Your task to perform on an android device: open a bookmark in the chrome app Image 0: 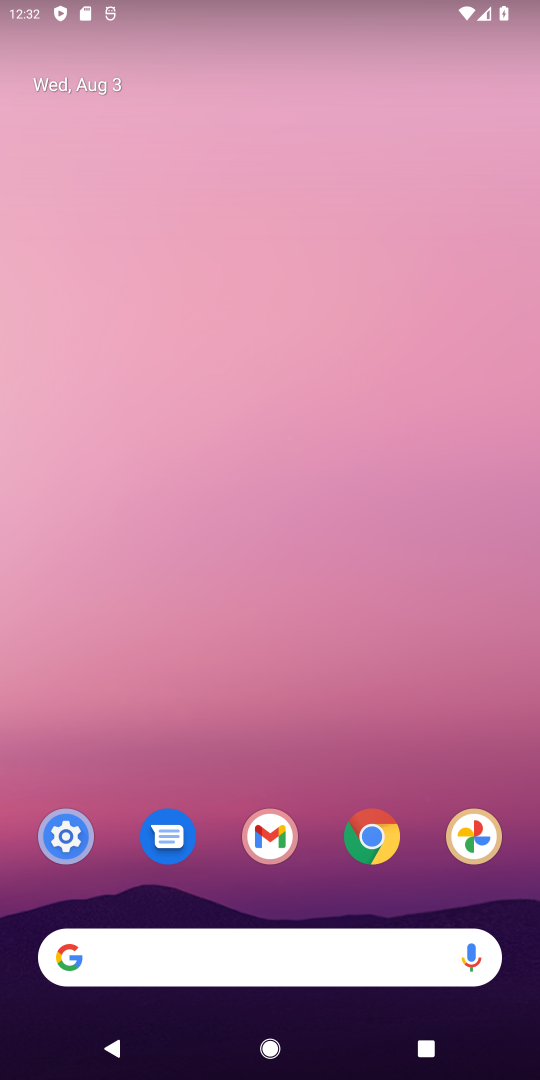
Step 0: drag from (228, 671) to (228, 85)
Your task to perform on an android device: open a bookmark in the chrome app Image 1: 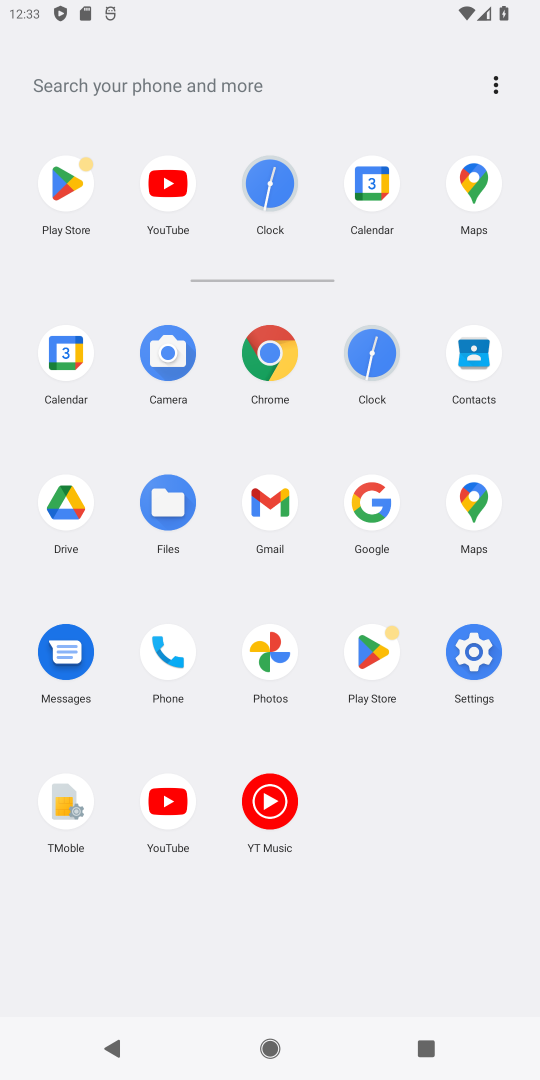
Step 1: click (268, 344)
Your task to perform on an android device: open a bookmark in the chrome app Image 2: 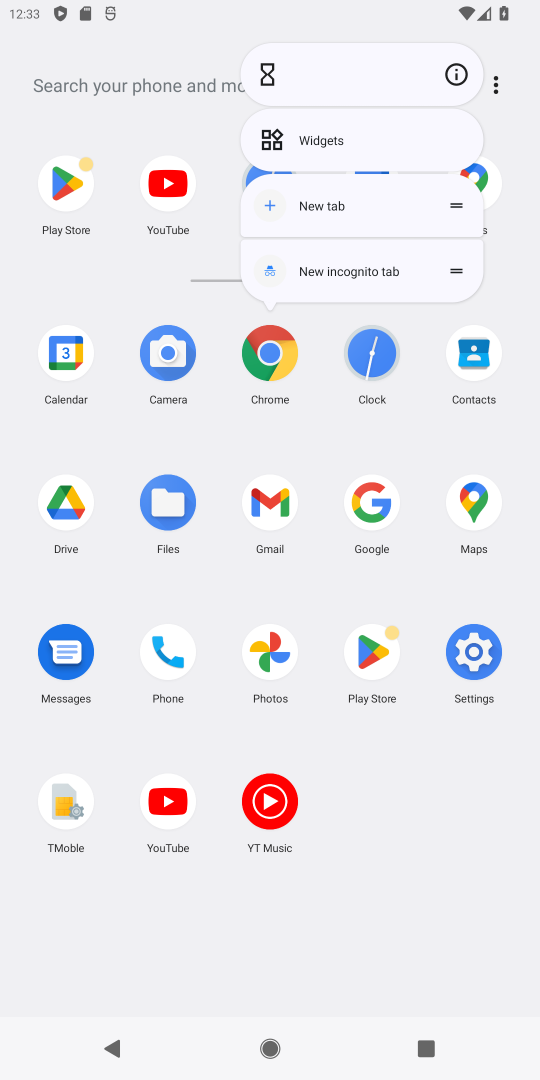
Step 2: click (459, 69)
Your task to perform on an android device: open a bookmark in the chrome app Image 3: 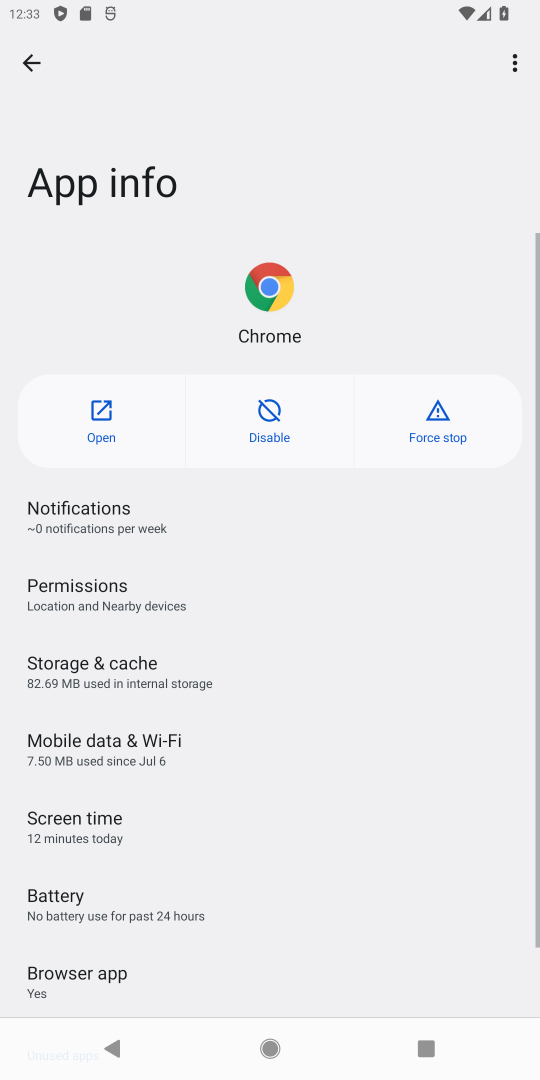
Step 3: click (82, 417)
Your task to perform on an android device: open a bookmark in the chrome app Image 4: 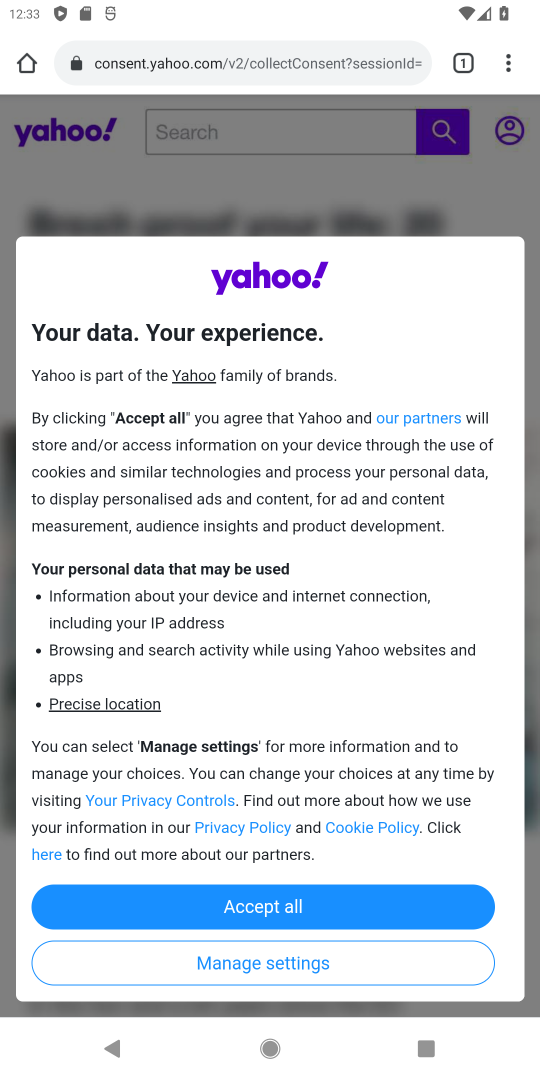
Step 4: task complete